Your task to perform on an android device: toggle notifications settings in the gmail app Image 0: 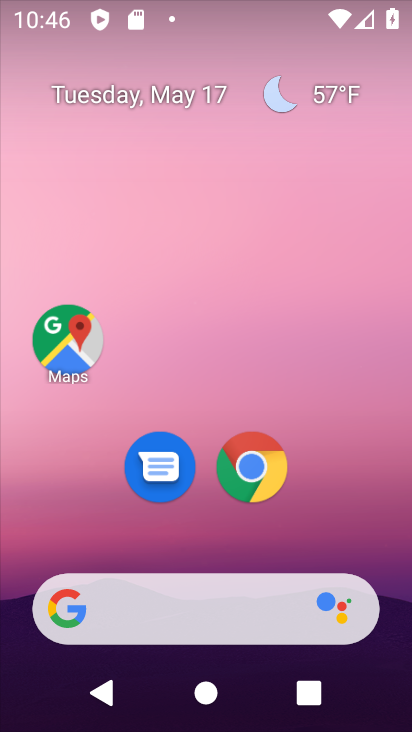
Step 0: drag from (229, 567) to (253, 90)
Your task to perform on an android device: toggle notifications settings in the gmail app Image 1: 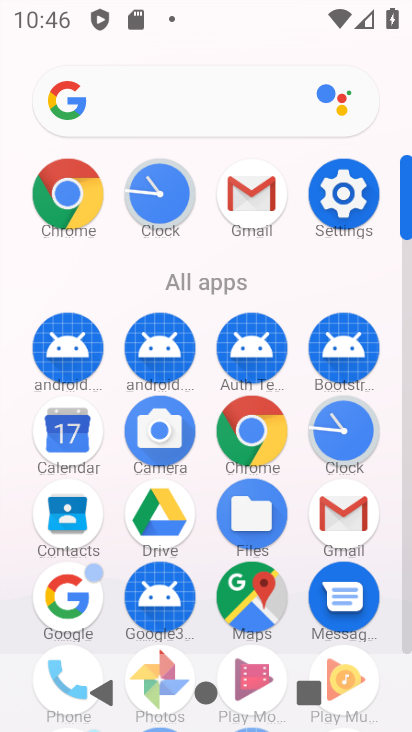
Step 1: click (246, 204)
Your task to perform on an android device: toggle notifications settings in the gmail app Image 2: 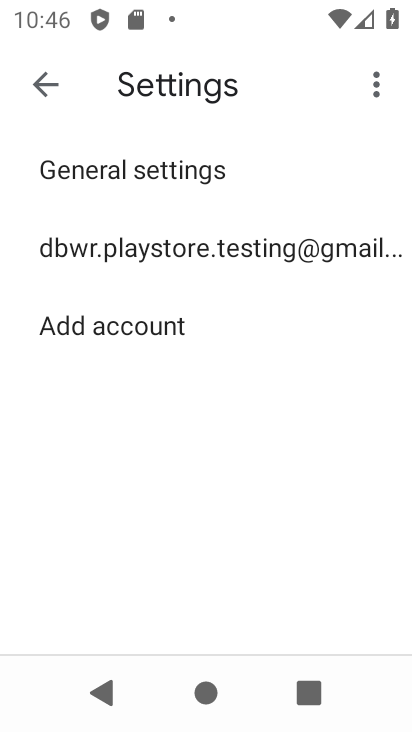
Step 2: click (142, 165)
Your task to perform on an android device: toggle notifications settings in the gmail app Image 3: 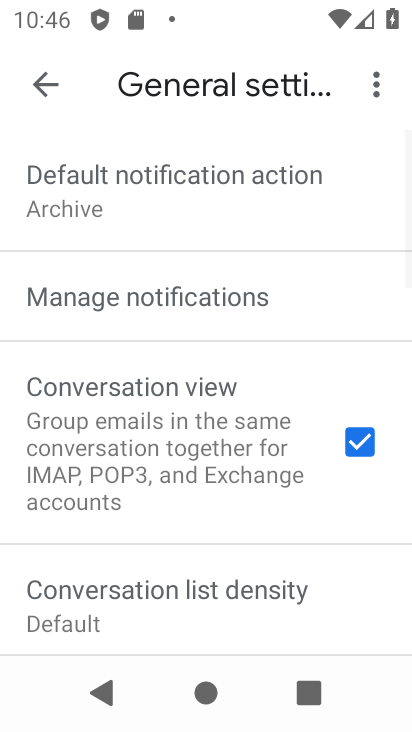
Step 3: click (157, 294)
Your task to perform on an android device: toggle notifications settings in the gmail app Image 4: 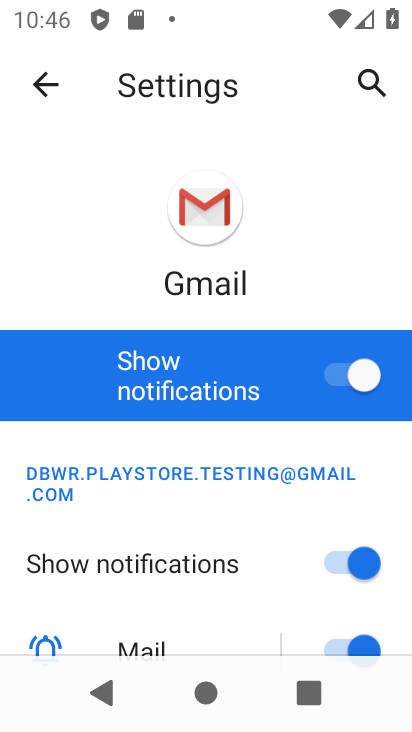
Step 4: click (333, 377)
Your task to perform on an android device: toggle notifications settings in the gmail app Image 5: 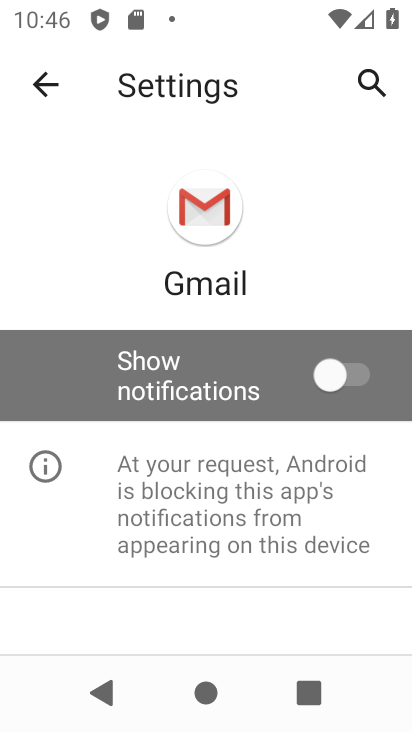
Step 5: task complete